Your task to perform on an android device: change keyboard looks Image 0: 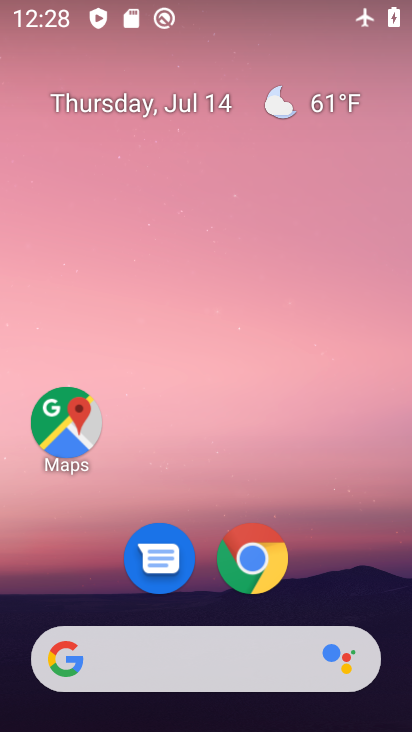
Step 0: drag from (211, 386) to (262, 0)
Your task to perform on an android device: change keyboard looks Image 1: 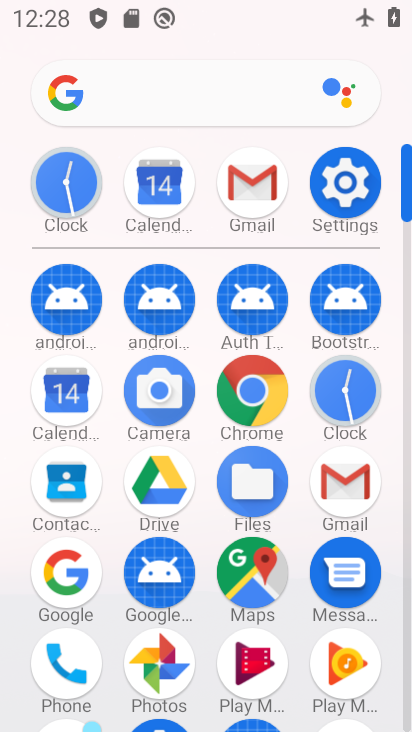
Step 1: click (353, 166)
Your task to perform on an android device: change keyboard looks Image 2: 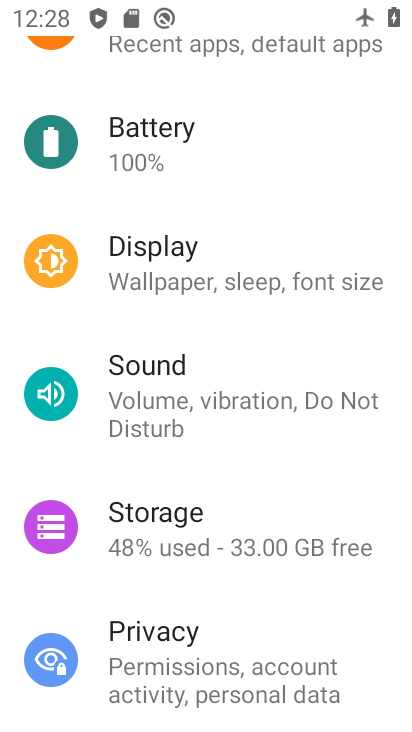
Step 2: drag from (289, 138) to (267, 87)
Your task to perform on an android device: change keyboard looks Image 3: 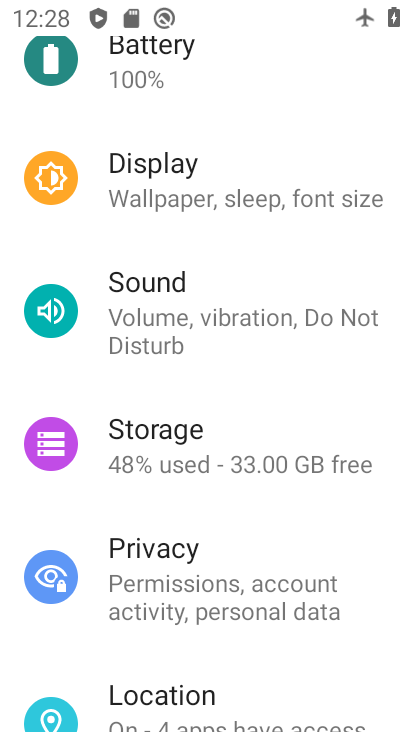
Step 3: drag from (191, 614) to (296, 9)
Your task to perform on an android device: change keyboard looks Image 4: 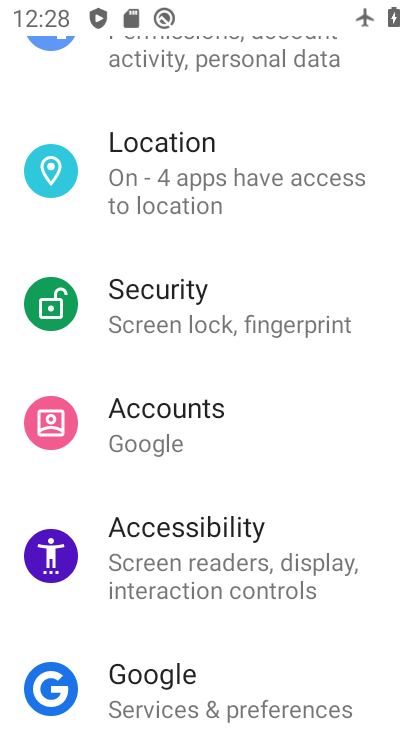
Step 4: drag from (199, 655) to (281, 18)
Your task to perform on an android device: change keyboard looks Image 5: 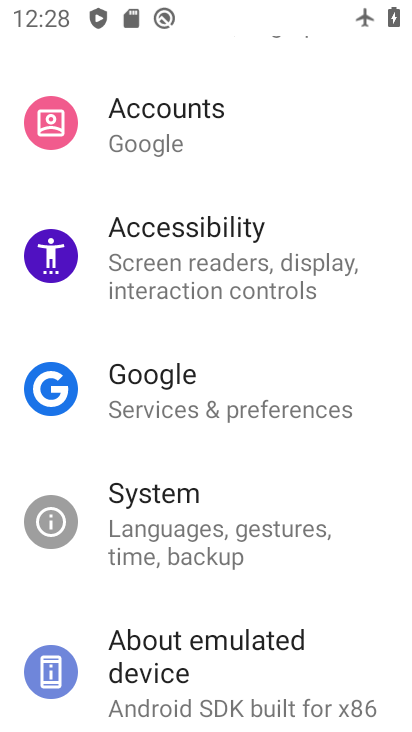
Step 5: click (190, 528)
Your task to perform on an android device: change keyboard looks Image 6: 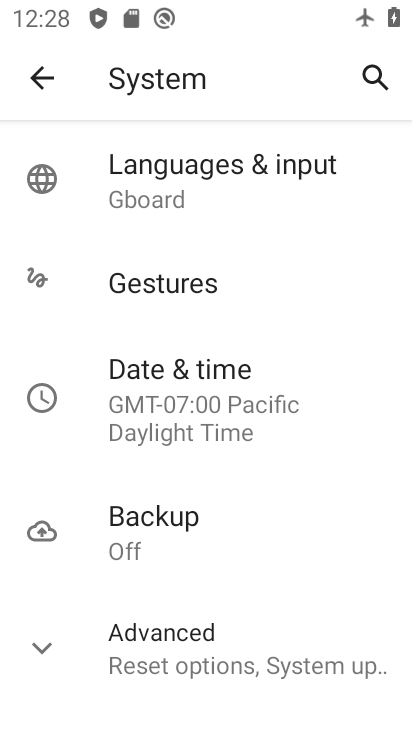
Step 6: drag from (206, 602) to (304, 113)
Your task to perform on an android device: change keyboard looks Image 7: 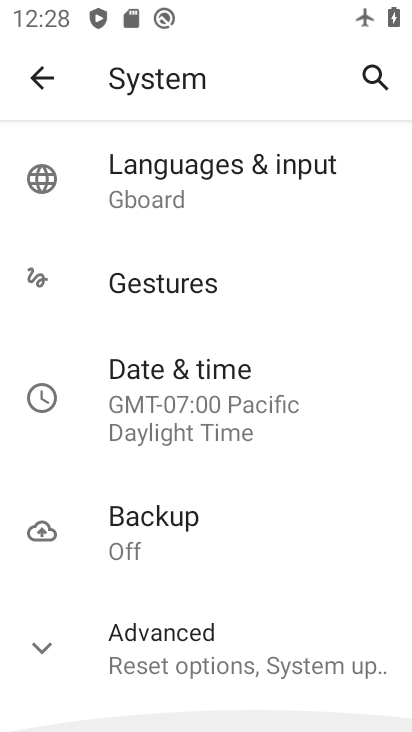
Step 7: click (174, 189)
Your task to perform on an android device: change keyboard looks Image 8: 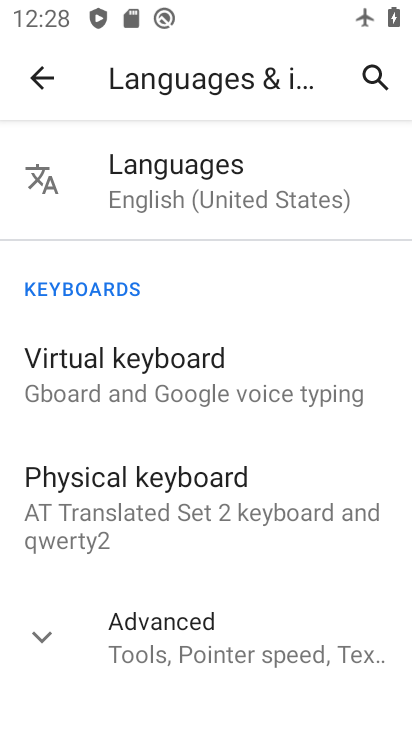
Step 8: click (156, 381)
Your task to perform on an android device: change keyboard looks Image 9: 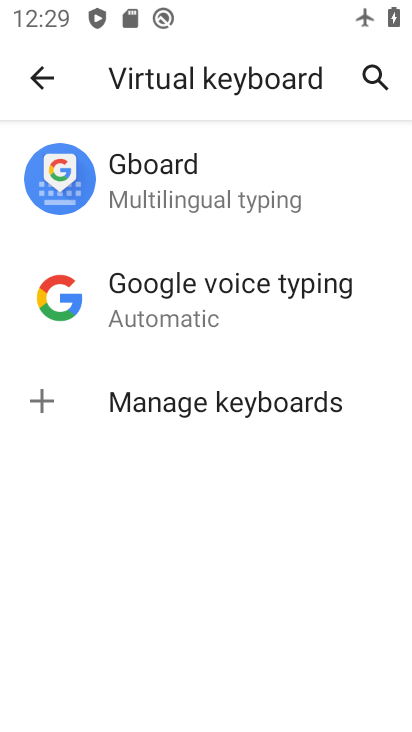
Step 9: click (201, 181)
Your task to perform on an android device: change keyboard looks Image 10: 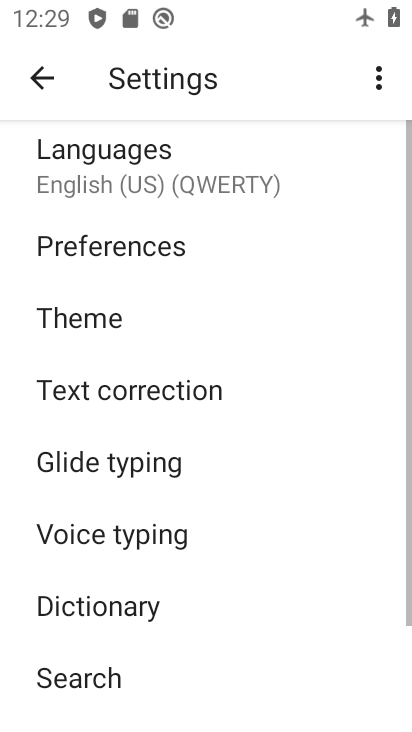
Step 10: click (108, 307)
Your task to perform on an android device: change keyboard looks Image 11: 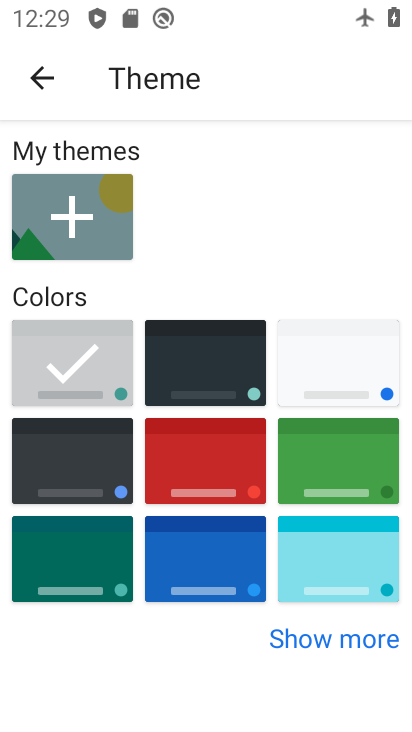
Step 11: click (371, 469)
Your task to perform on an android device: change keyboard looks Image 12: 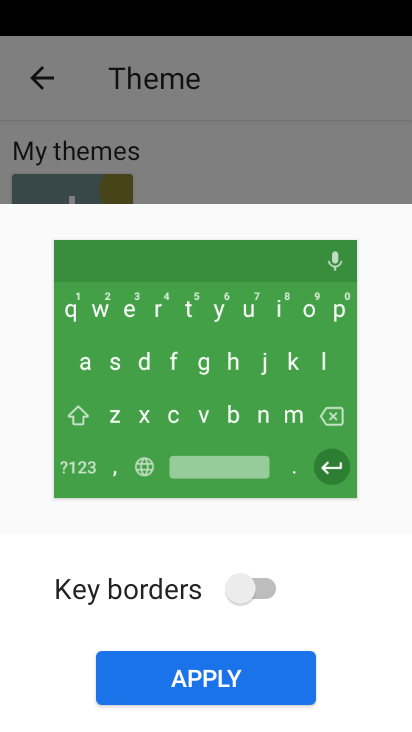
Step 12: click (158, 679)
Your task to perform on an android device: change keyboard looks Image 13: 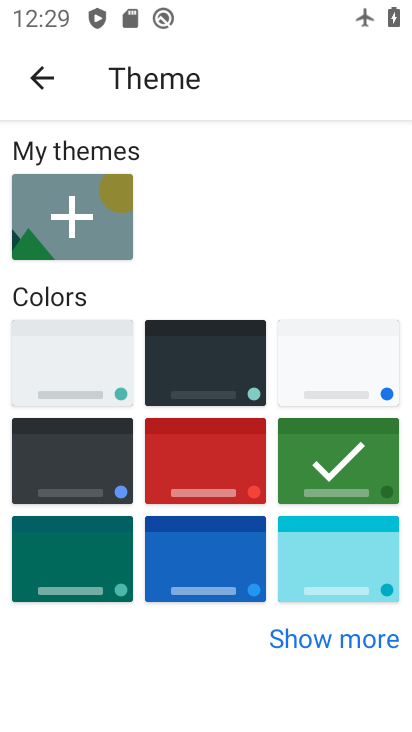
Step 13: task complete